Your task to perform on an android device: turn off wifi Image 0: 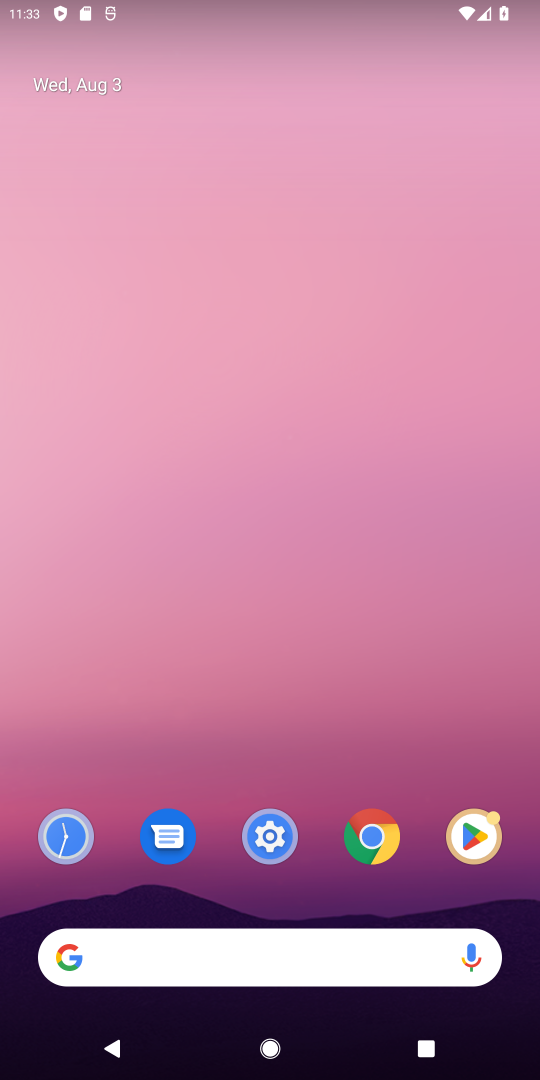
Step 0: drag from (228, 823) to (238, 296)
Your task to perform on an android device: turn off wifi Image 1: 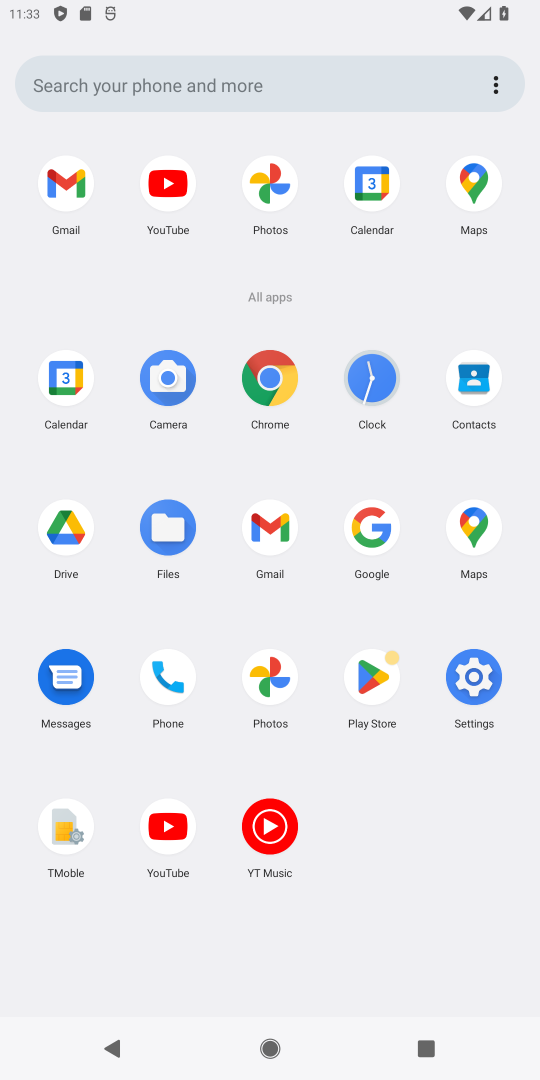
Step 1: click (469, 674)
Your task to perform on an android device: turn off wifi Image 2: 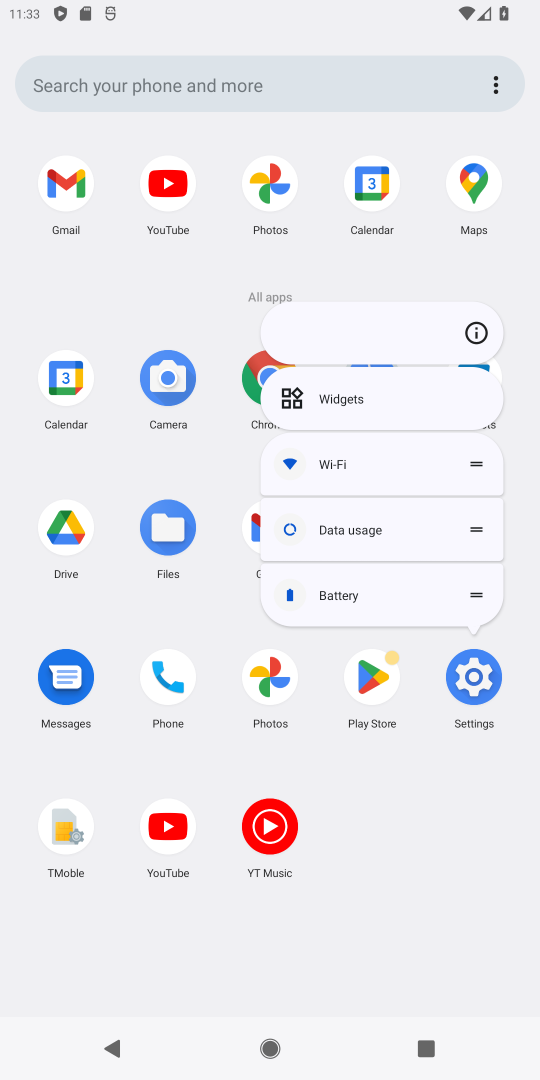
Step 2: click (470, 325)
Your task to perform on an android device: turn off wifi Image 3: 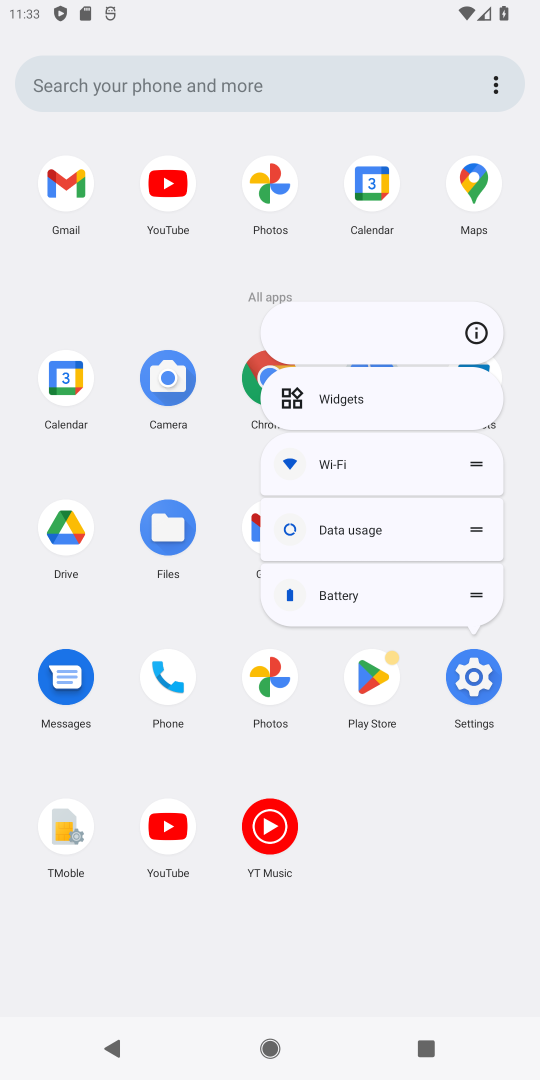
Step 3: click (475, 321)
Your task to perform on an android device: turn off wifi Image 4: 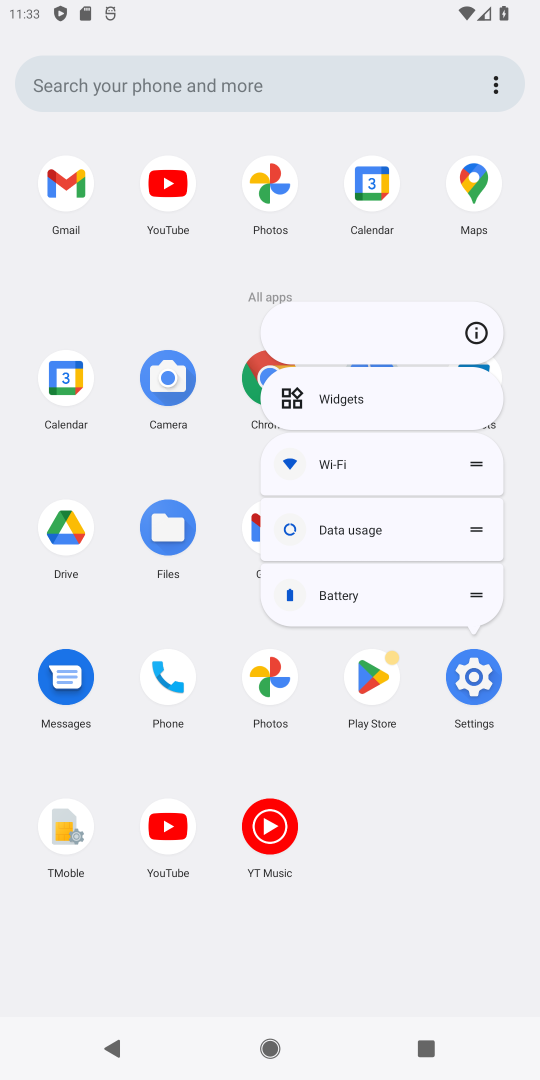
Step 4: click (474, 323)
Your task to perform on an android device: turn off wifi Image 5: 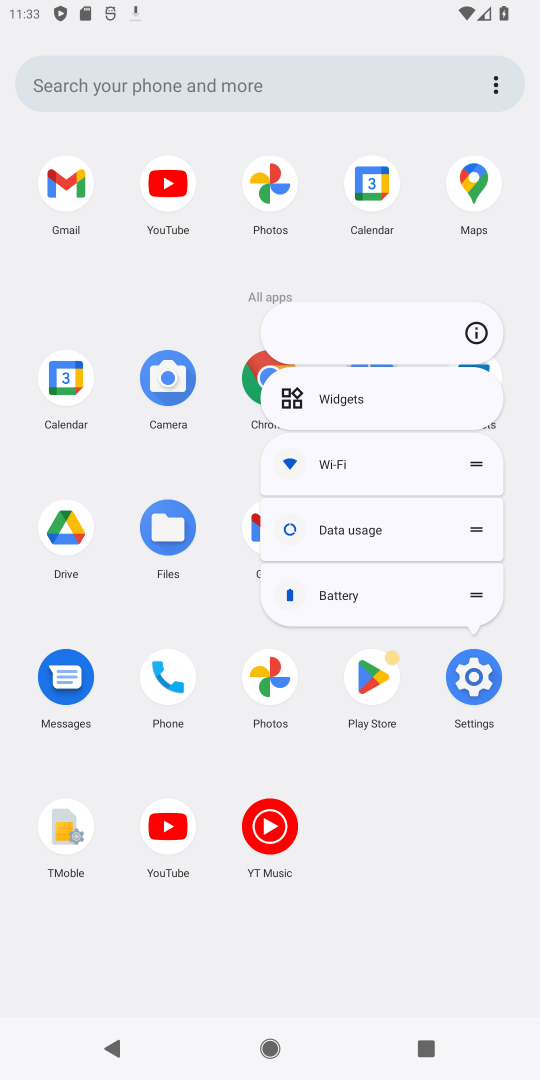
Step 5: click (478, 325)
Your task to perform on an android device: turn off wifi Image 6: 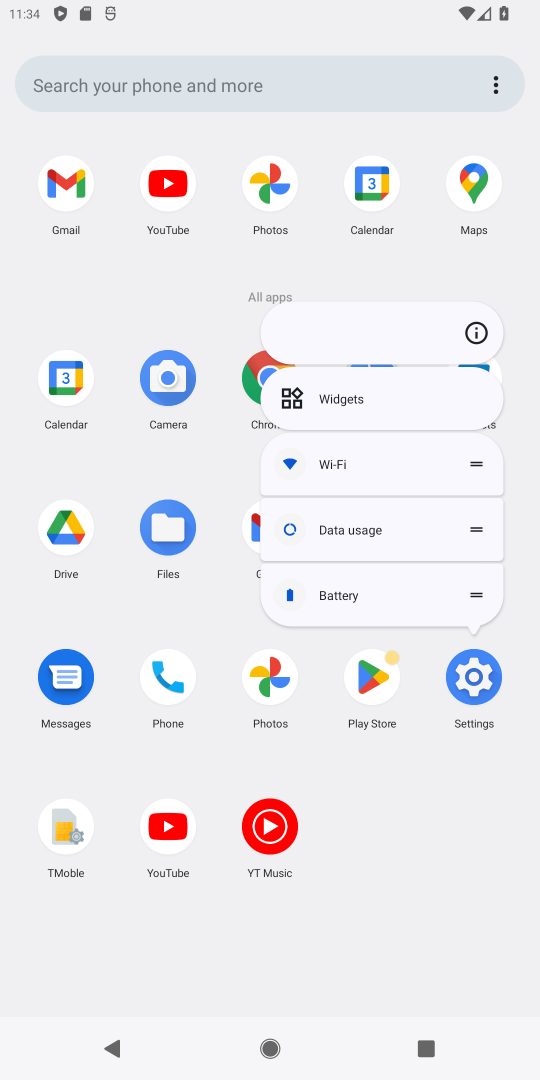
Step 6: click (489, 328)
Your task to perform on an android device: turn off wifi Image 7: 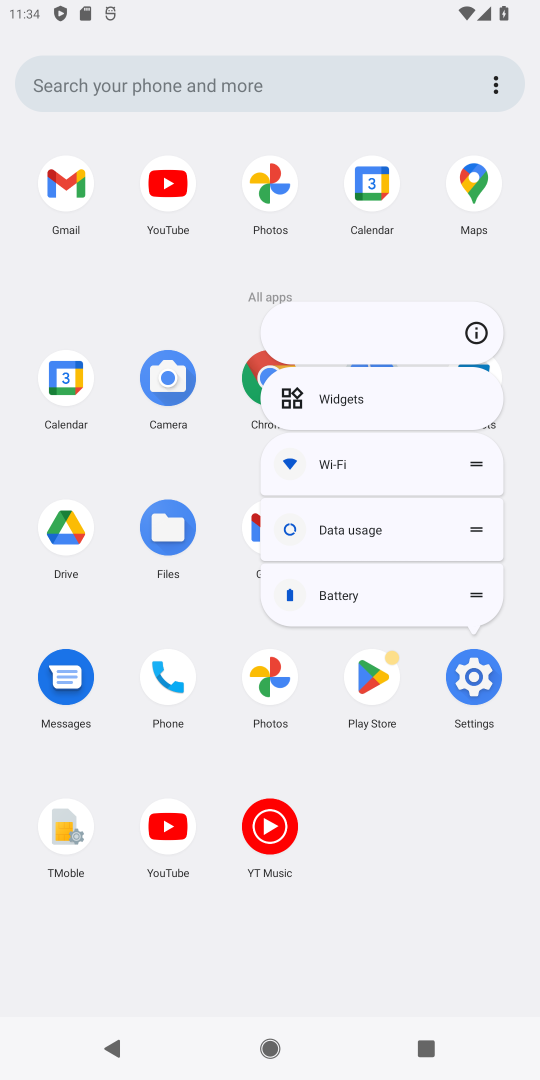
Step 7: click (463, 330)
Your task to perform on an android device: turn off wifi Image 8: 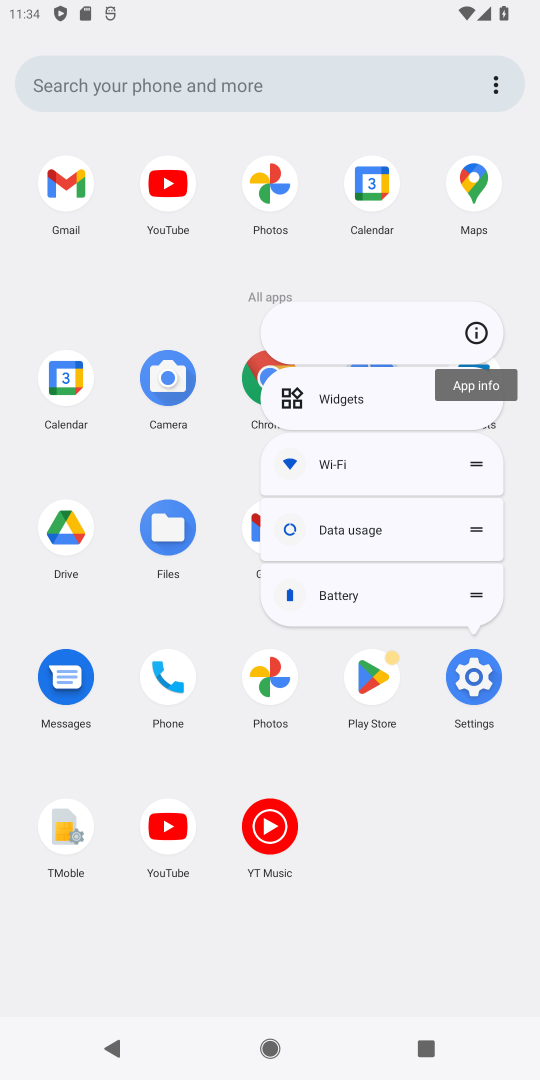
Step 8: click (462, 327)
Your task to perform on an android device: turn off wifi Image 9: 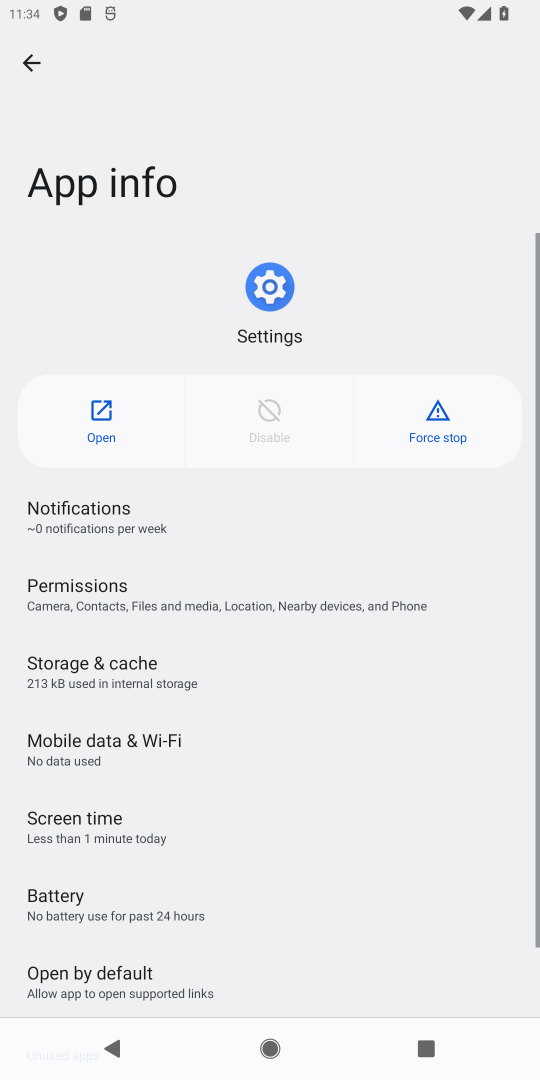
Step 9: click (88, 409)
Your task to perform on an android device: turn off wifi Image 10: 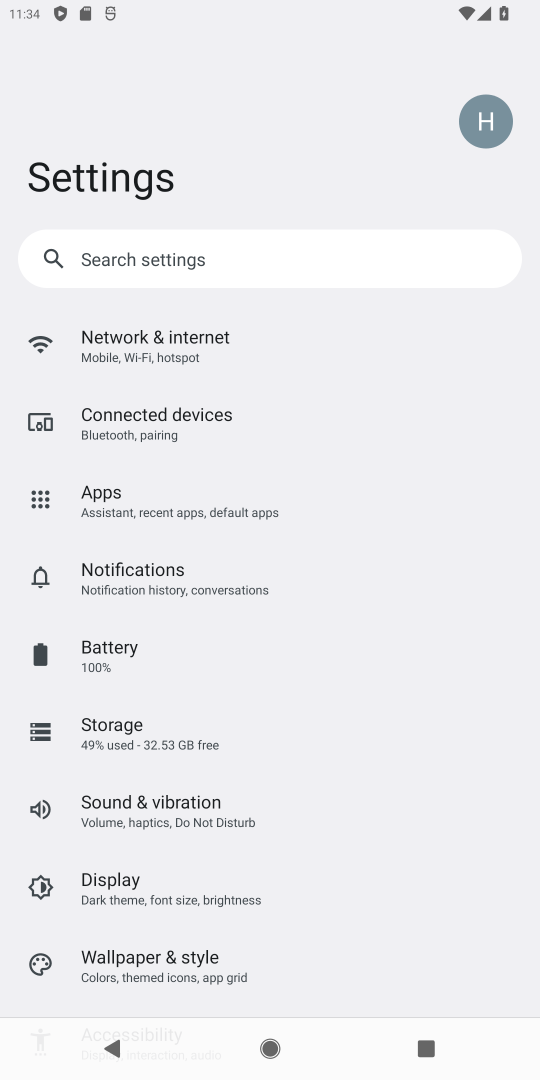
Step 10: drag from (287, 938) to (298, 111)
Your task to perform on an android device: turn off wifi Image 11: 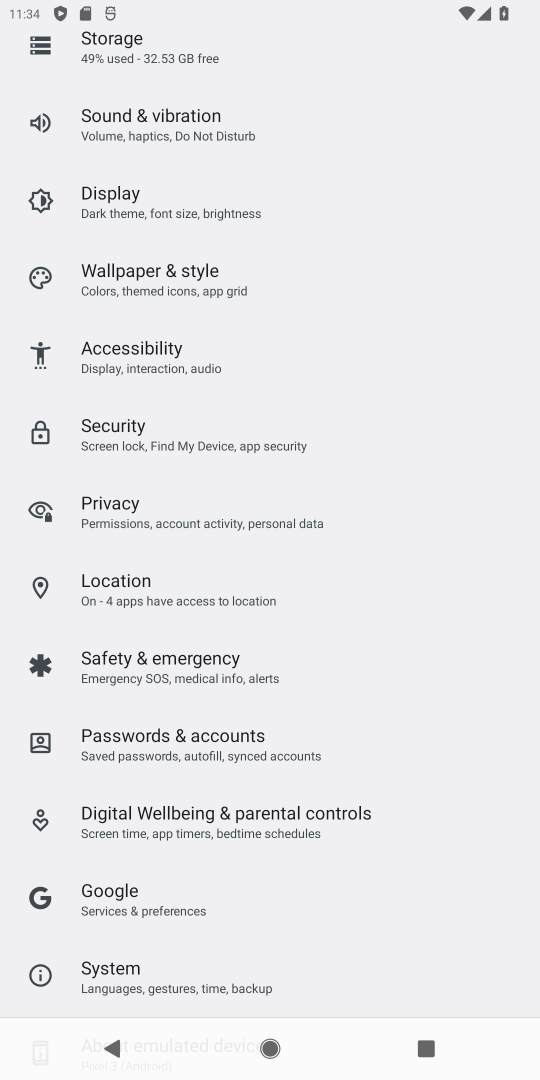
Step 11: drag from (218, 802) to (289, 216)
Your task to perform on an android device: turn off wifi Image 12: 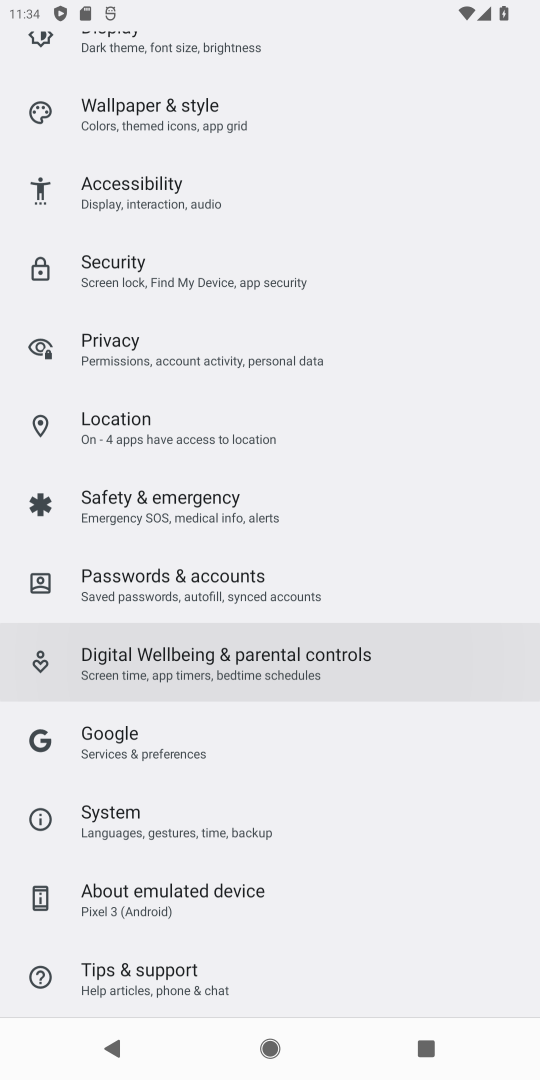
Step 12: drag from (299, 199) to (422, 1041)
Your task to perform on an android device: turn off wifi Image 13: 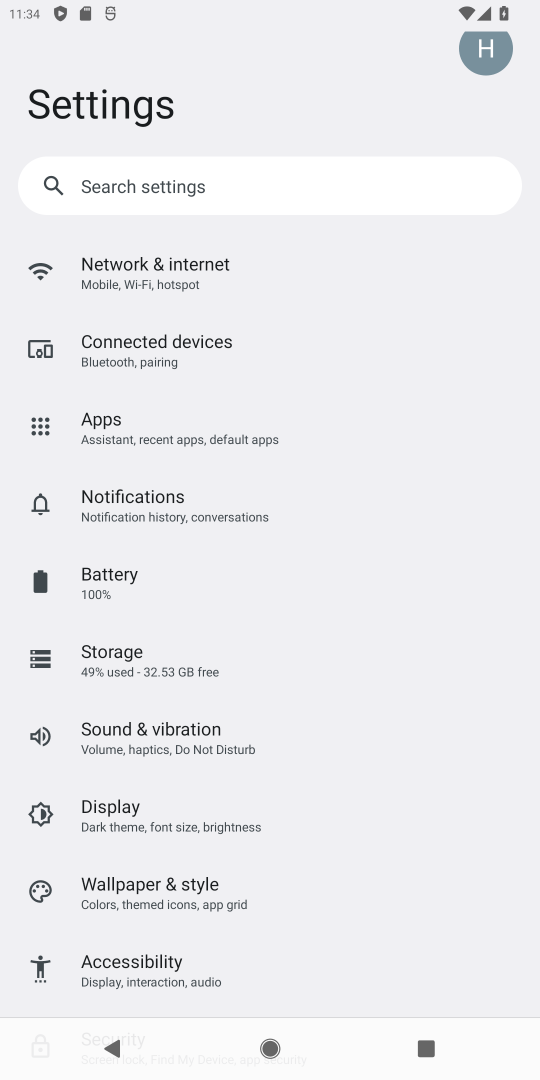
Step 13: click (117, 273)
Your task to perform on an android device: turn off wifi Image 14: 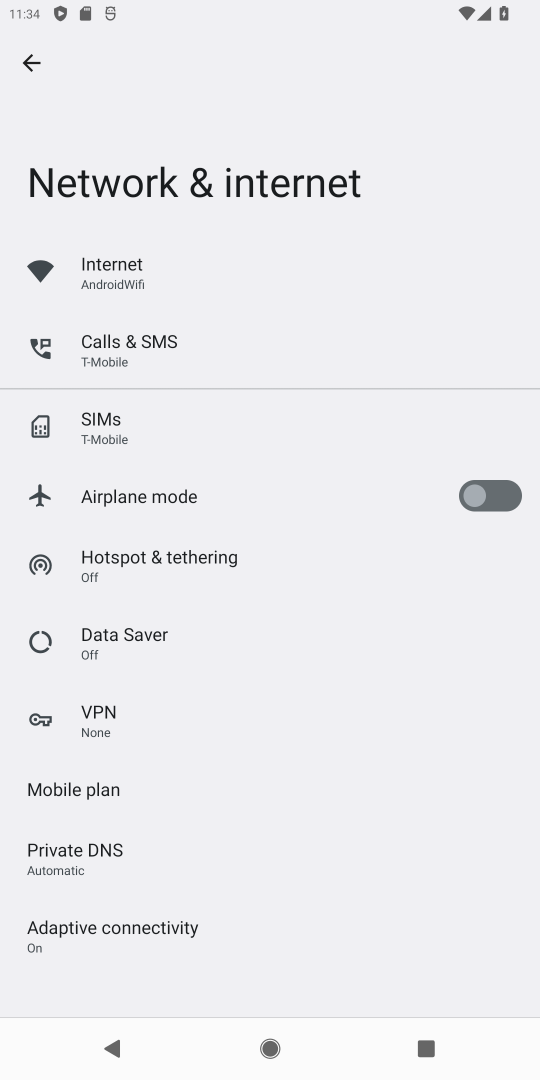
Step 14: click (106, 275)
Your task to perform on an android device: turn off wifi Image 15: 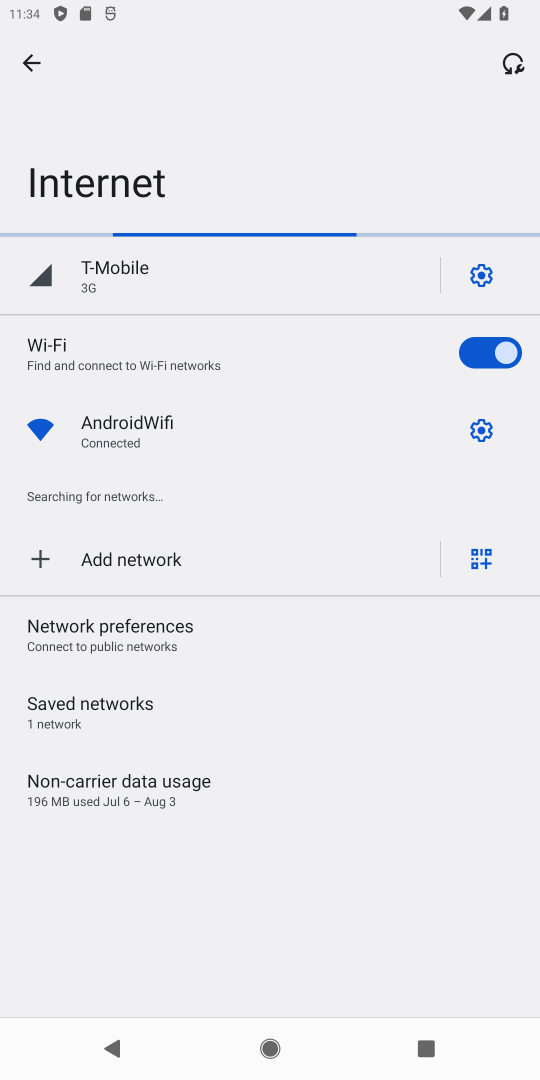
Step 15: click (496, 359)
Your task to perform on an android device: turn off wifi Image 16: 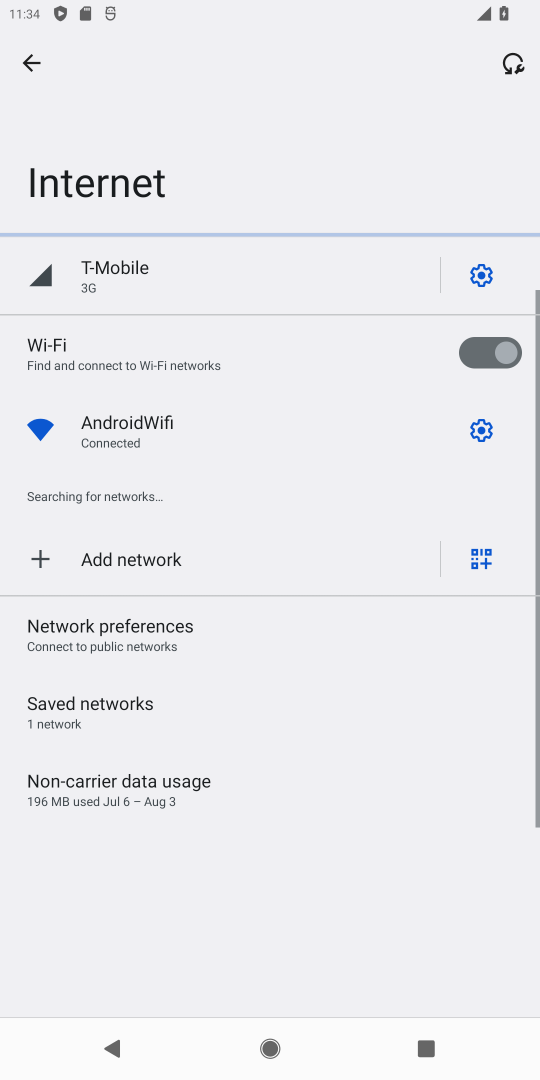
Step 16: task complete